Your task to perform on an android device: What's the weather? Image 0: 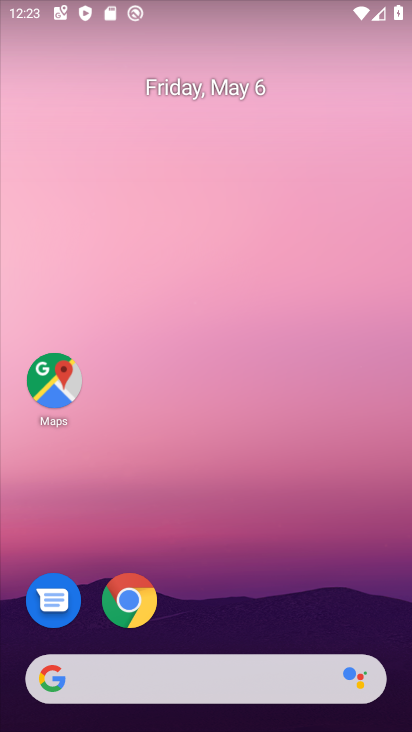
Step 0: click (244, 690)
Your task to perform on an android device: What's the weather? Image 1: 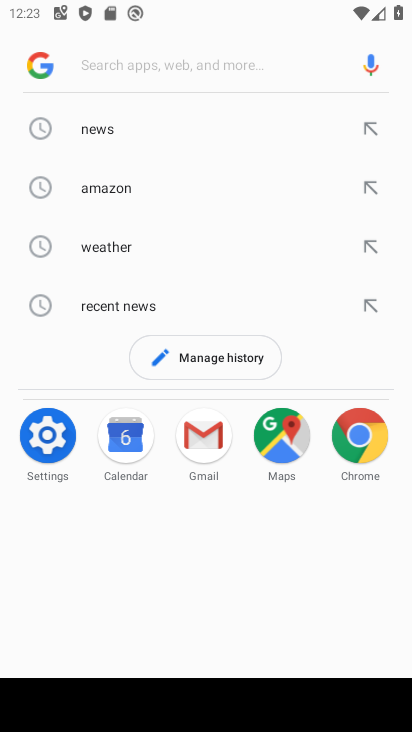
Step 1: click (134, 239)
Your task to perform on an android device: What's the weather? Image 2: 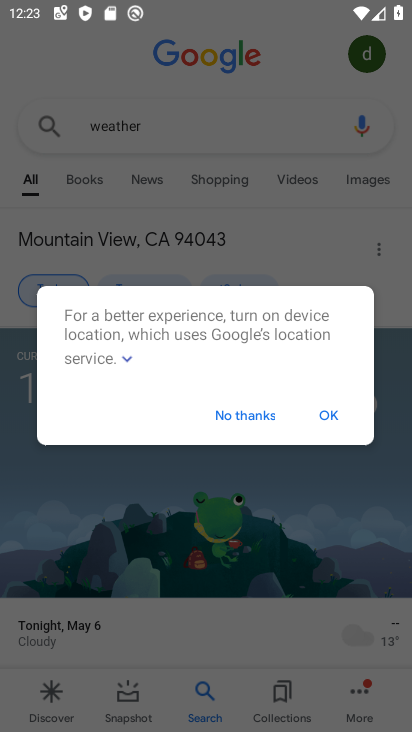
Step 2: click (231, 427)
Your task to perform on an android device: What's the weather? Image 3: 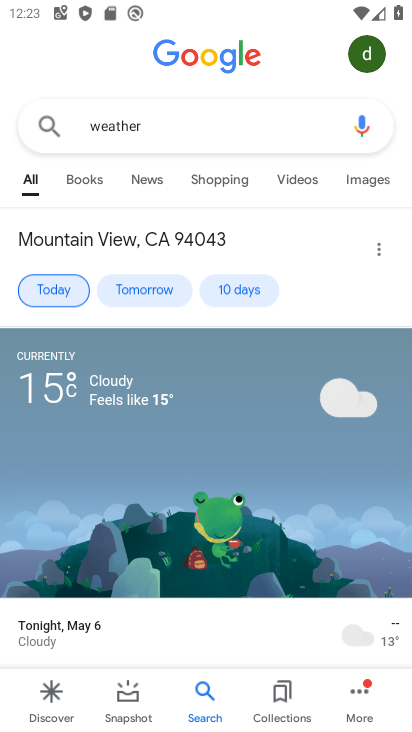
Step 3: task complete